Your task to perform on an android device: Is it going to rain today? Image 0: 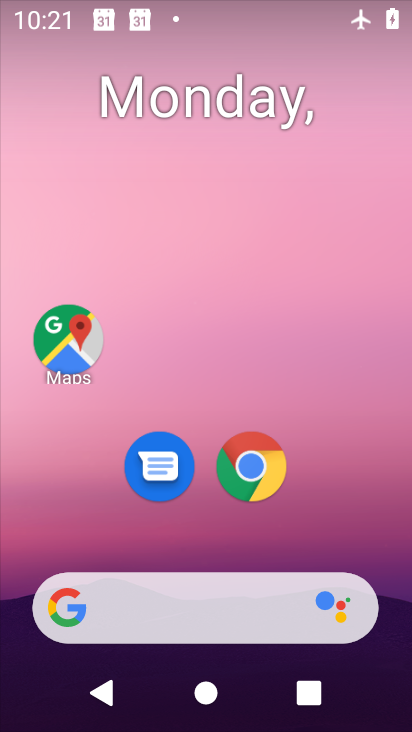
Step 0: drag from (249, 633) to (179, 52)
Your task to perform on an android device: Is it going to rain today? Image 1: 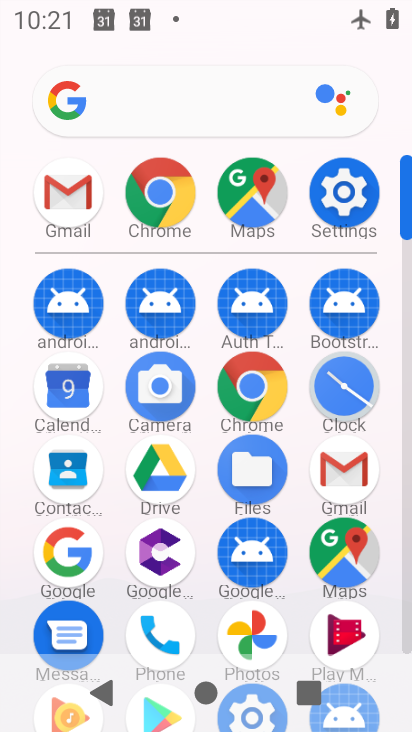
Step 1: press back button
Your task to perform on an android device: Is it going to rain today? Image 2: 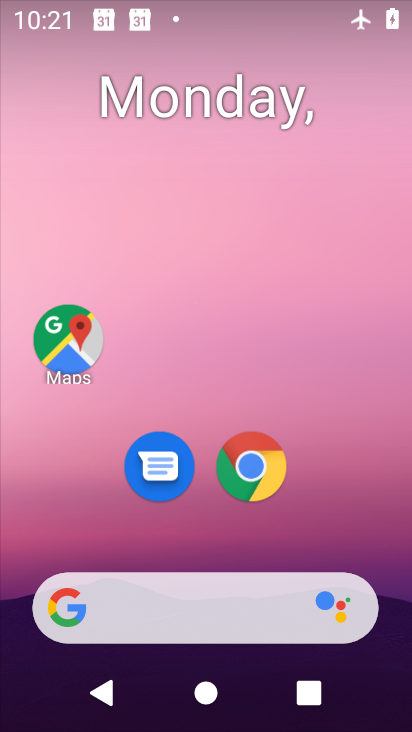
Step 2: drag from (3, 219) to (391, 675)
Your task to perform on an android device: Is it going to rain today? Image 3: 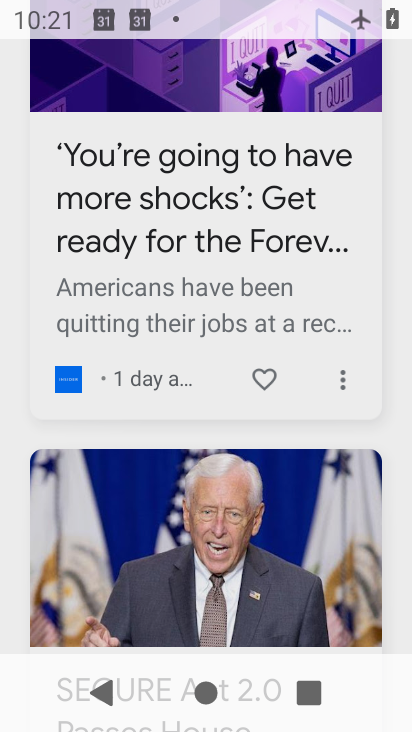
Step 3: drag from (178, 162) to (226, 502)
Your task to perform on an android device: Is it going to rain today? Image 4: 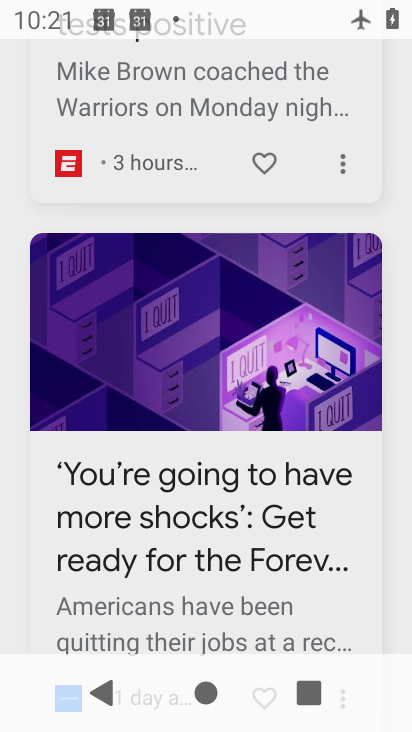
Step 4: drag from (244, 242) to (194, 634)
Your task to perform on an android device: Is it going to rain today? Image 5: 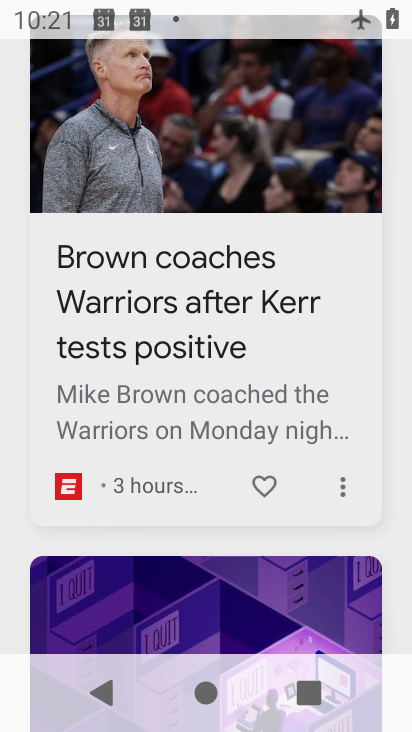
Step 5: drag from (146, 151) to (221, 587)
Your task to perform on an android device: Is it going to rain today? Image 6: 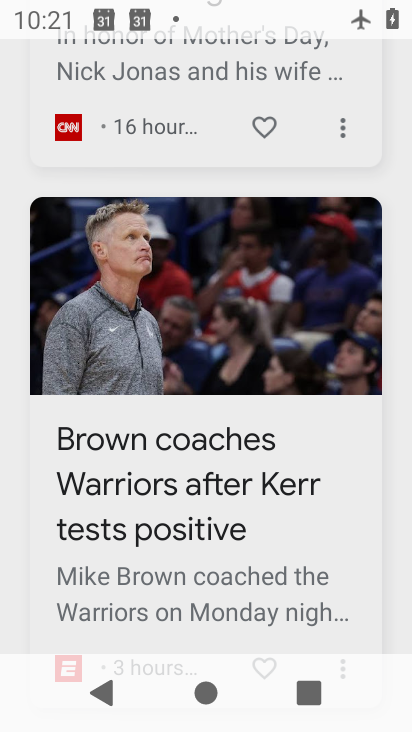
Step 6: drag from (214, 237) to (220, 562)
Your task to perform on an android device: Is it going to rain today? Image 7: 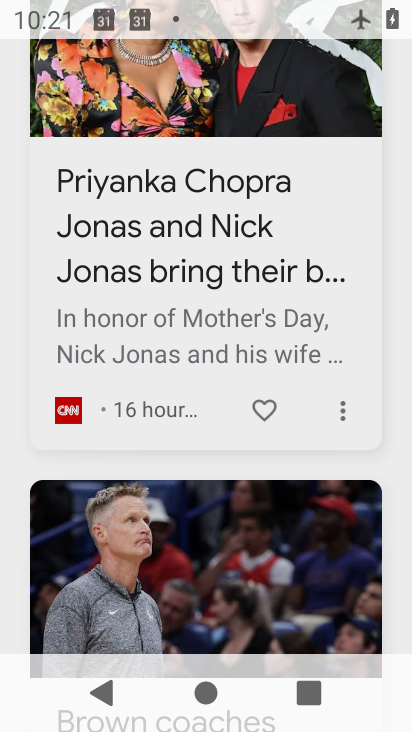
Step 7: drag from (217, 416) to (141, 526)
Your task to perform on an android device: Is it going to rain today? Image 8: 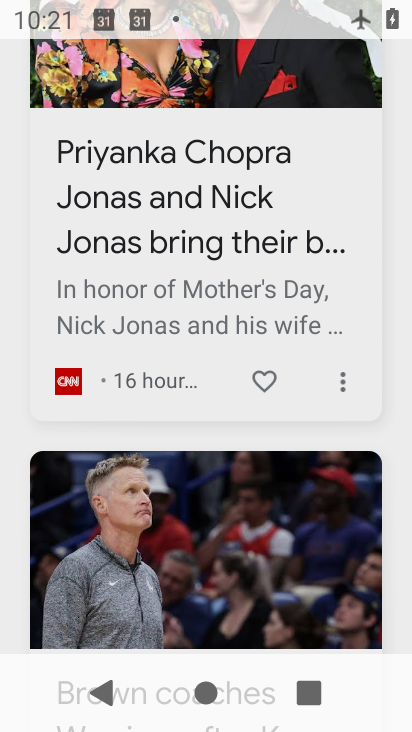
Step 8: drag from (143, 186) to (180, 415)
Your task to perform on an android device: Is it going to rain today? Image 9: 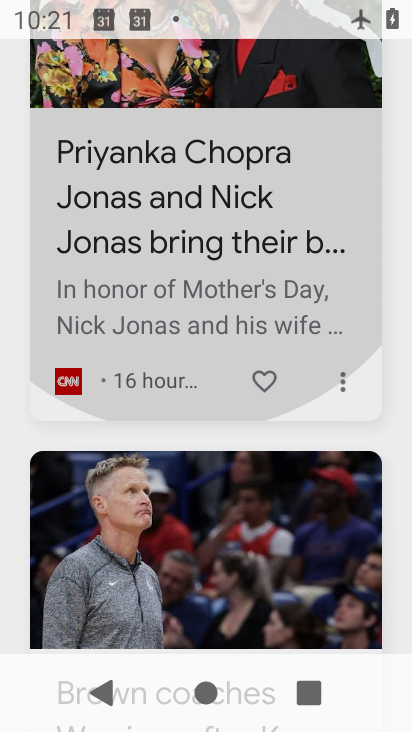
Step 9: drag from (153, 181) to (264, 565)
Your task to perform on an android device: Is it going to rain today? Image 10: 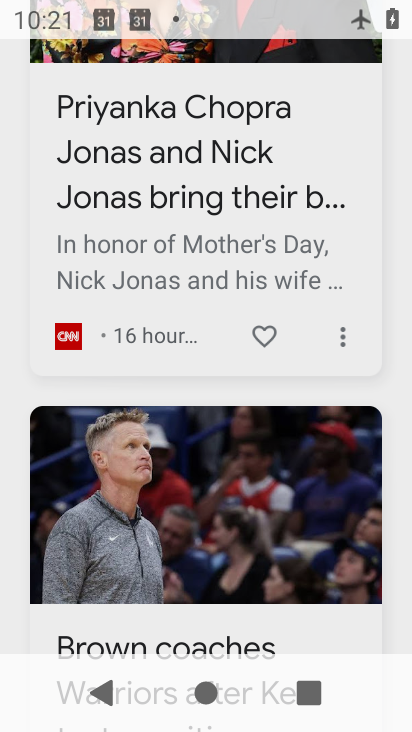
Step 10: drag from (302, 146) to (250, 534)
Your task to perform on an android device: Is it going to rain today? Image 11: 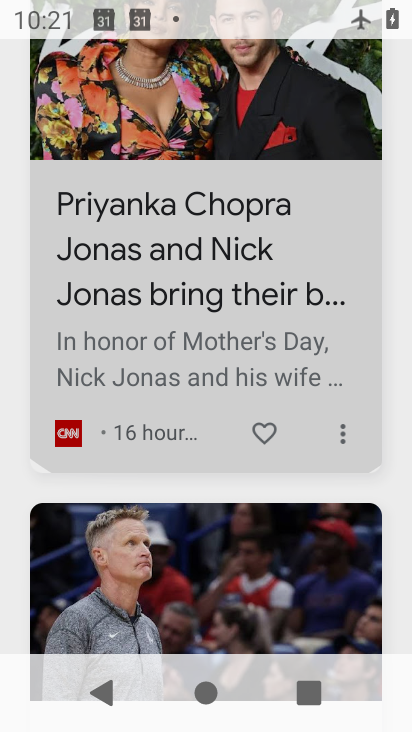
Step 11: drag from (180, 139) to (201, 422)
Your task to perform on an android device: Is it going to rain today? Image 12: 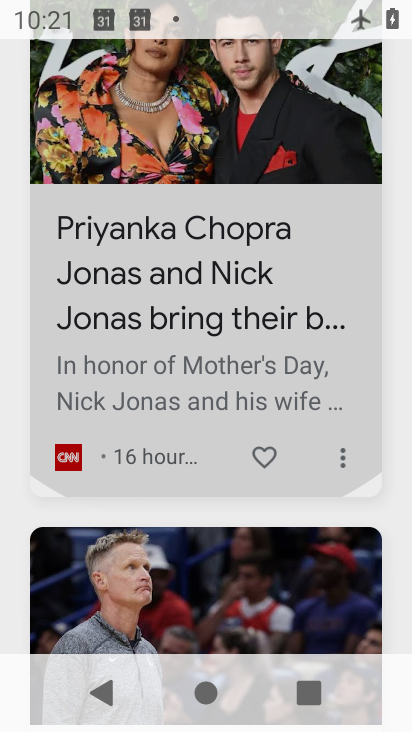
Step 12: drag from (176, 123) to (206, 459)
Your task to perform on an android device: Is it going to rain today? Image 13: 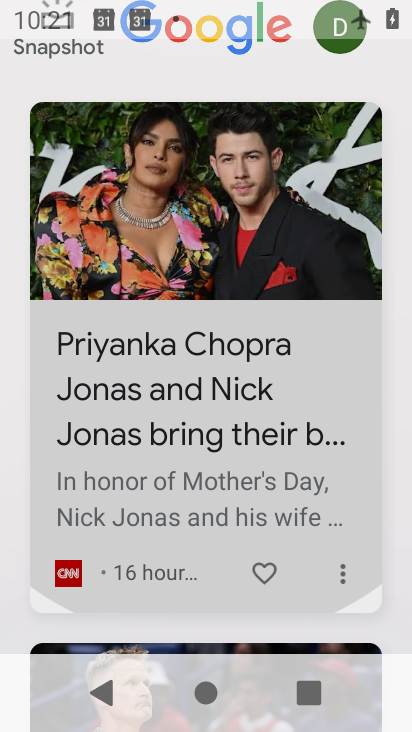
Step 13: drag from (174, 136) to (226, 519)
Your task to perform on an android device: Is it going to rain today? Image 14: 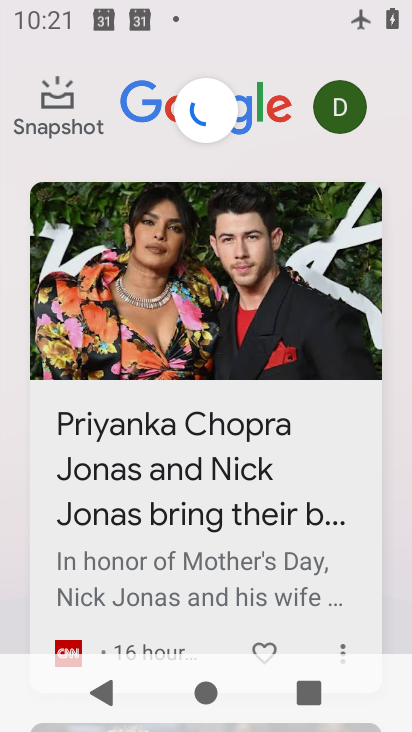
Step 14: drag from (227, 415) to (220, 583)
Your task to perform on an android device: Is it going to rain today? Image 15: 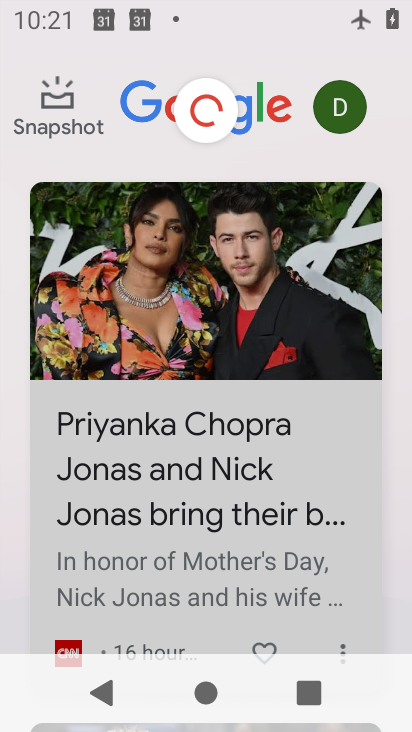
Step 15: drag from (186, 152) to (215, 510)
Your task to perform on an android device: Is it going to rain today? Image 16: 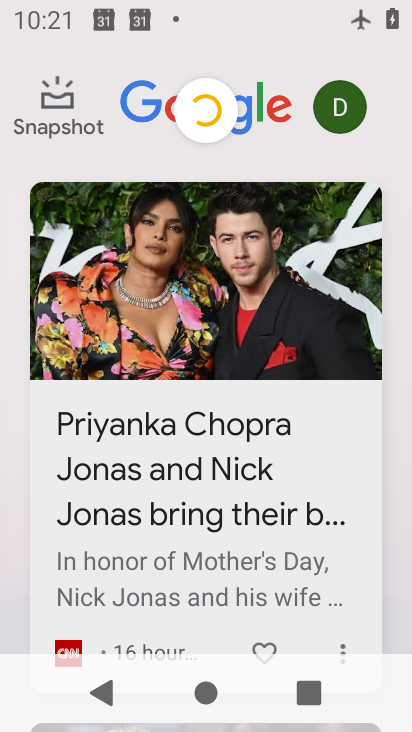
Step 16: drag from (158, 212) to (215, 551)
Your task to perform on an android device: Is it going to rain today? Image 17: 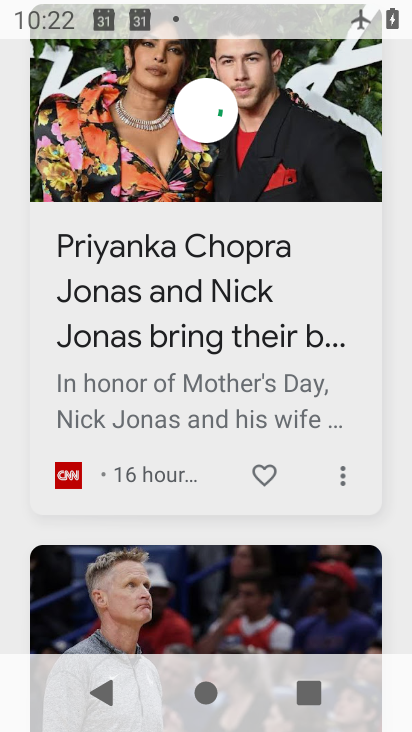
Step 17: drag from (189, 212) to (257, 513)
Your task to perform on an android device: Is it going to rain today? Image 18: 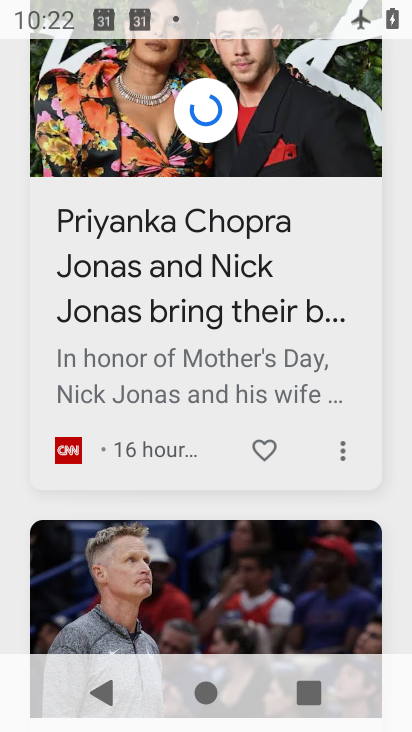
Step 18: drag from (174, 397) to (253, 556)
Your task to perform on an android device: Is it going to rain today? Image 19: 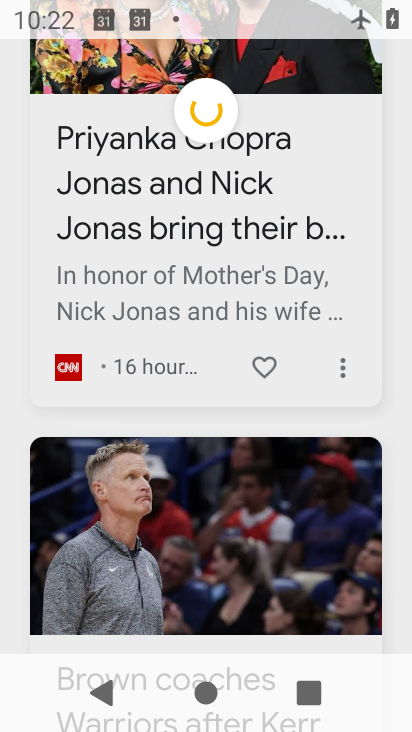
Step 19: drag from (210, 105) to (353, 119)
Your task to perform on an android device: Is it going to rain today? Image 20: 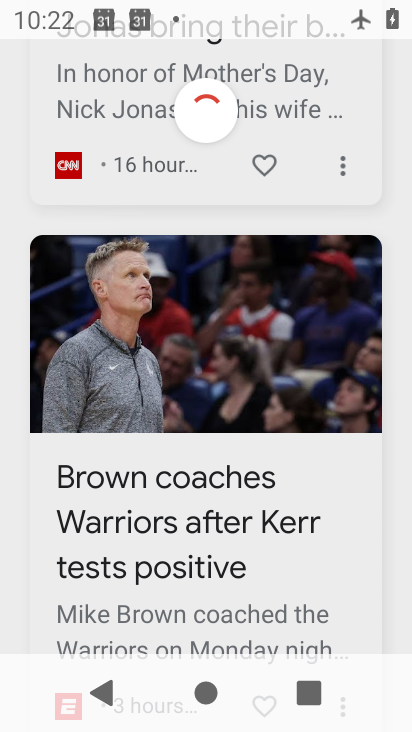
Step 20: drag from (160, 154) to (205, 459)
Your task to perform on an android device: Is it going to rain today? Image 21: 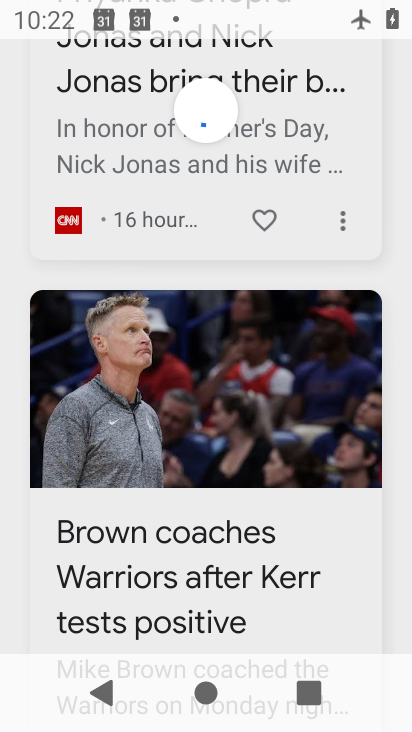
Step 21: drag from (163, 209) to (283, 553)
Your task to perform on an android device: Is it going to rain today? Image 22: 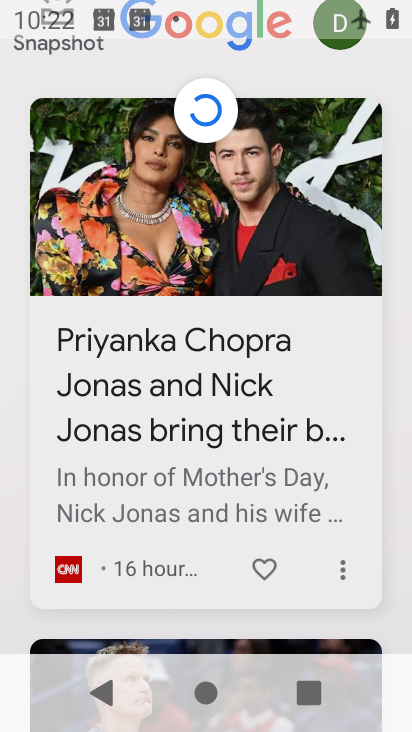
Step 22: drag from (335, 394) to (313, 591)
Your task to perform on an android device: Is it going to rain today? Image 23: 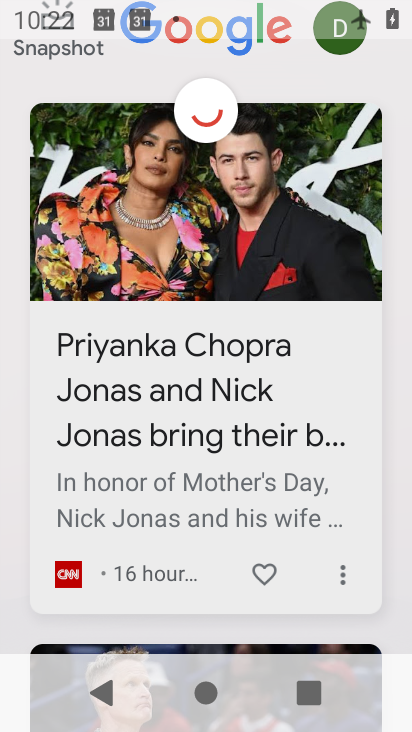
Step 23: drag from (224, 176) to (239, 487)
Your task to perform on an android device: Is it going to rain today? Image 24: 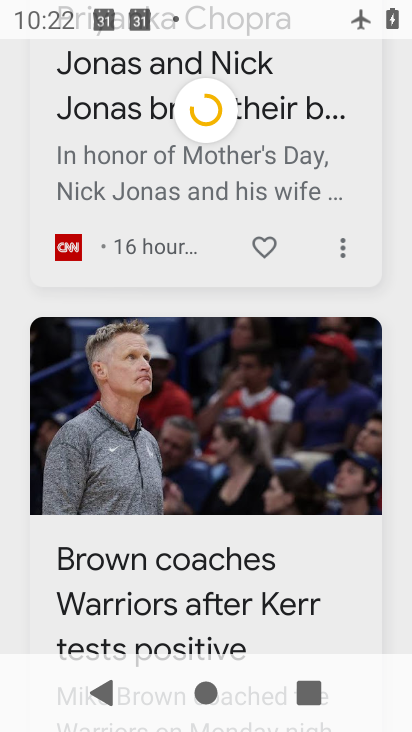
Step 24: drag from (180, 201) to (242, 544)
Your task to perform on an android device: Is it going to rain today? Image 25: 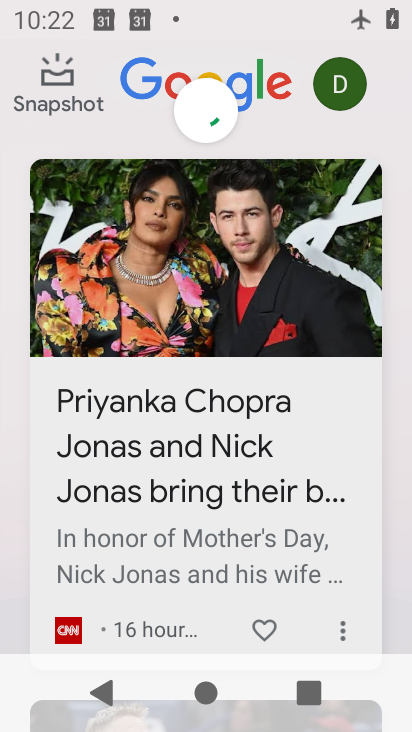
Step 25: drag from (183, 134) to (188, 520)
Your task to perform on an android device: Is it going to rain today? Image 26: 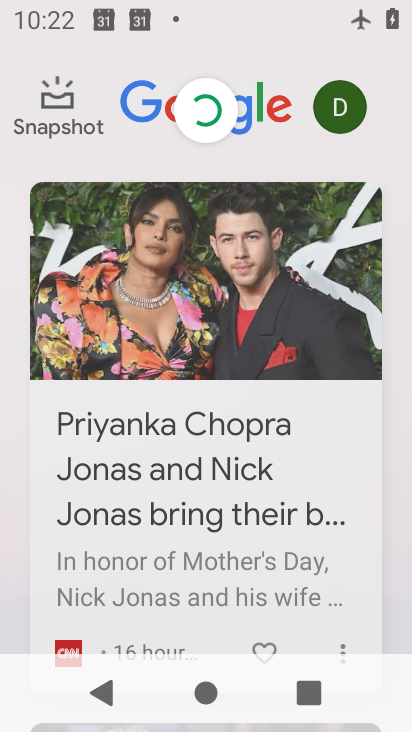
Step 26: click (228, 575)
Your task to perform on an android device: Is it going to rain today? Image 27: 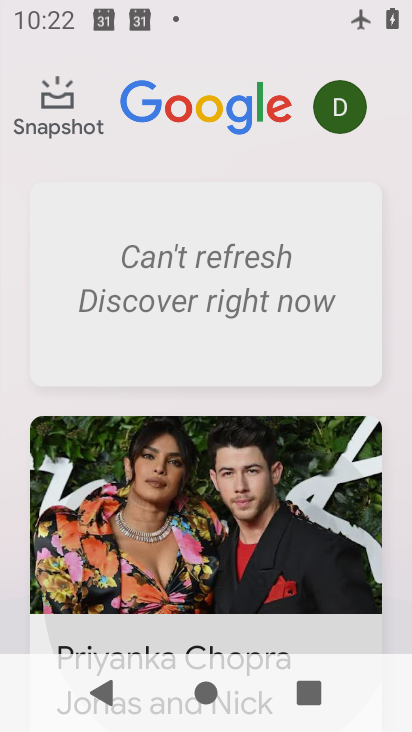
Step 27: task complete